Your task to perform on an android device: empty trash in the gmail app Image 0: 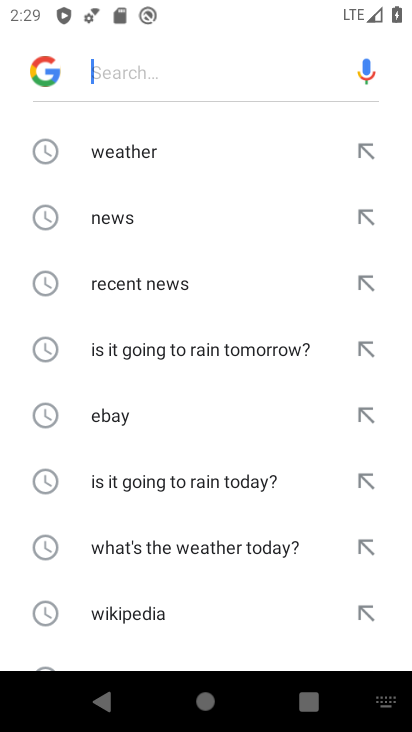
Step 0: press home button
Your task to perform on an android device: empty trash in the gmail app Image 1: 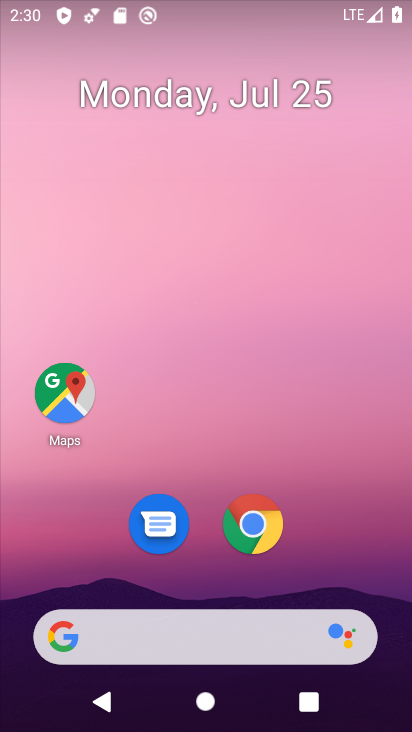
Step 1: drag from (317, 525) to (353, 34)
Your task to perform on an android device: empty trash in the gmail app Image 2: 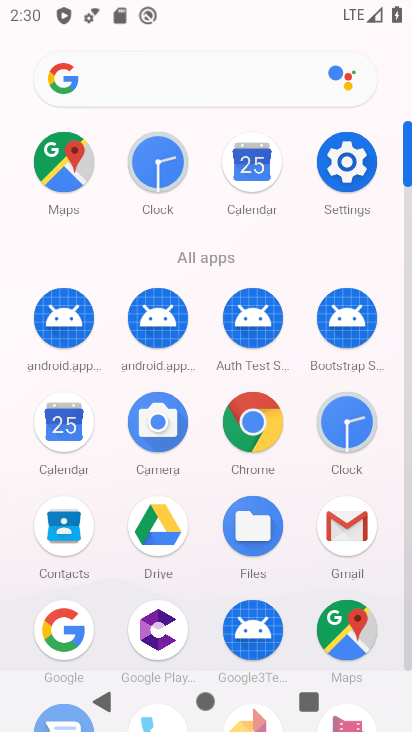
Step 2: click (348, 520)
Your task to perform on an android device: empty trash in the gmail app Image 3: 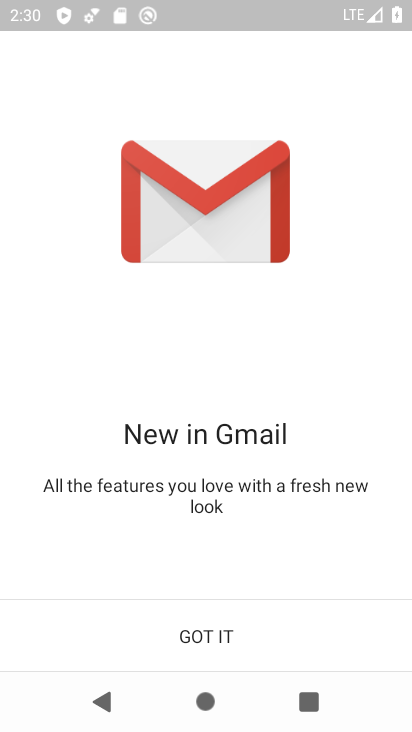
Step 3: click (234, 623)
Your task to perform on an android device: empty trash in the gmail app Image 4: 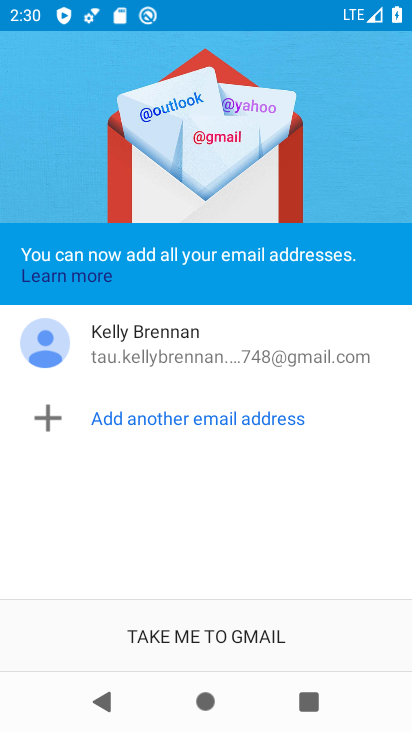
Step 4: click (234, 626)
Your task to perform on an android device: empty trash in the gmail app Image 5: 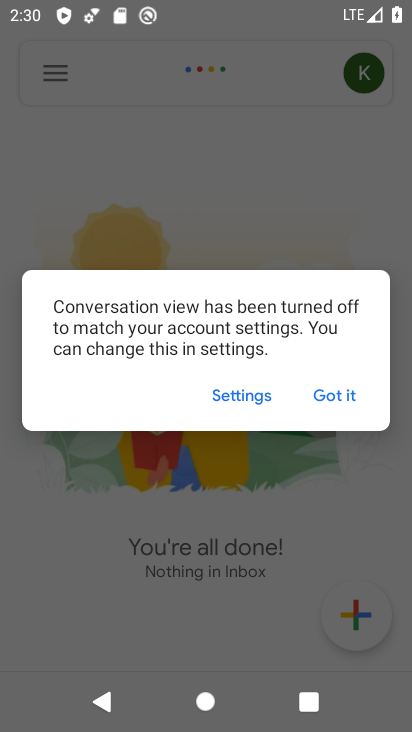
Step 5: click (353, 392)
Your task to perform on an android device: empty trash in the gmail app Image 6: 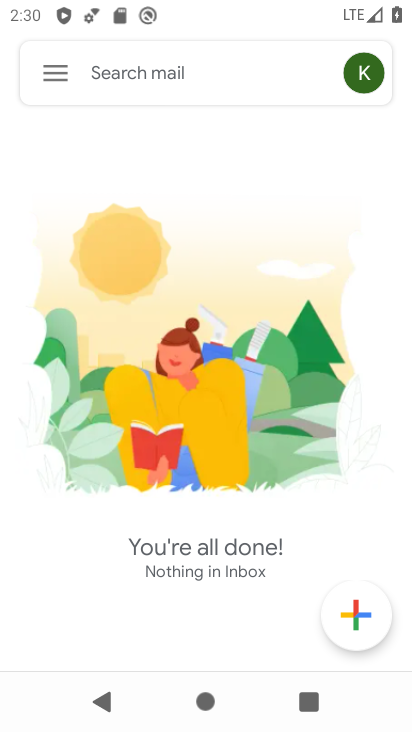
Step 6: click (53, 68)
Your task to perform on an android device: empty trash in the gmail app Image 7: 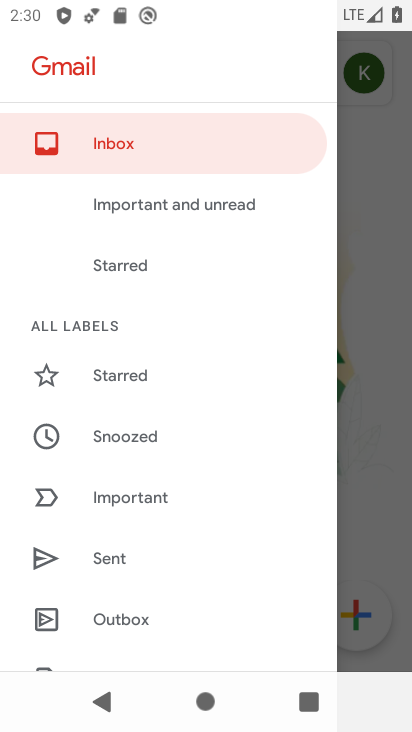
Step 7: drag from (169, 560) to (186, 92)
Your task to perform on an android device: empty trash in the gmail app Image 8: 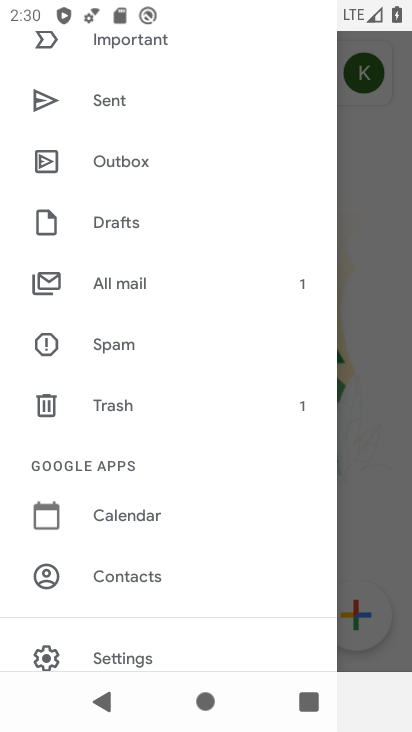
Step 8: click (106, 405)
Your task to perform on an android device: empty trash in the gmail app Image 9: 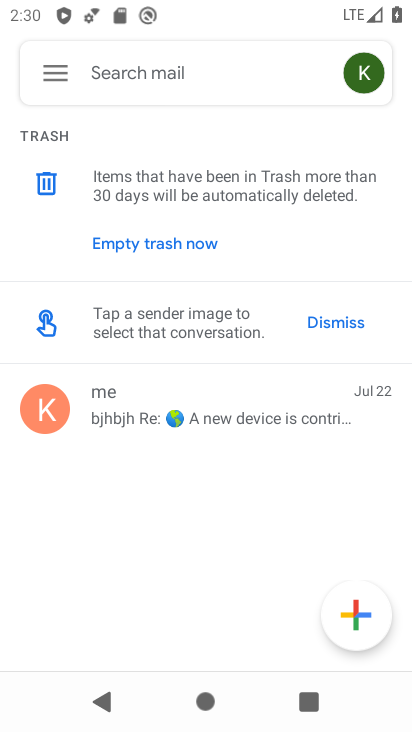
Step 9: click (196, 239)
Your task to perform on an android device: empty trash in the gmail app Image 10: 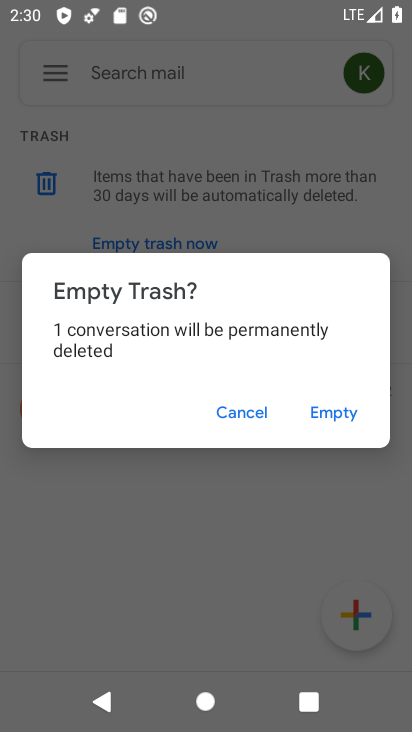
Step 10: click (323, 400)
Your task to perform on an android device: empty trash in the gmail app Image 11: 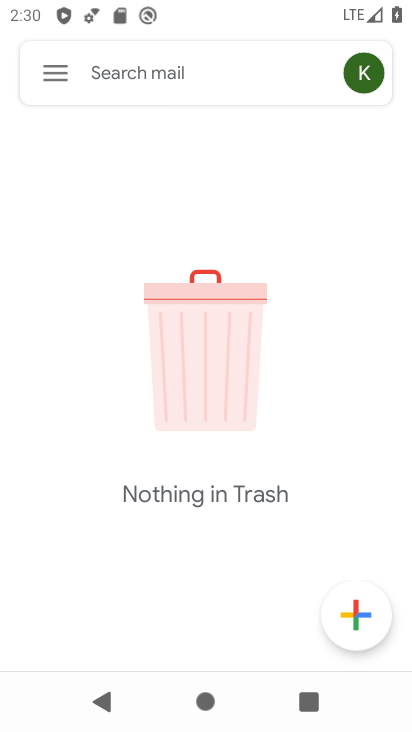
Step 11: task complete